Your task to perform on an android device: Go to display settings Image 0: 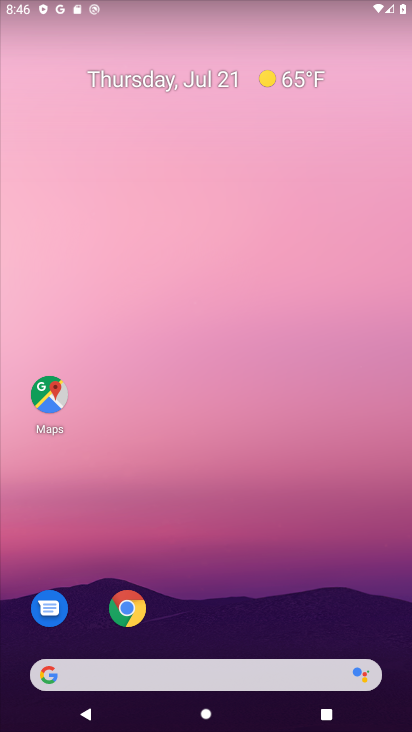
Step 0: drag from (261, 562) to (295, 284)
Your task to perform on an android device: Go to display settings Image 1: 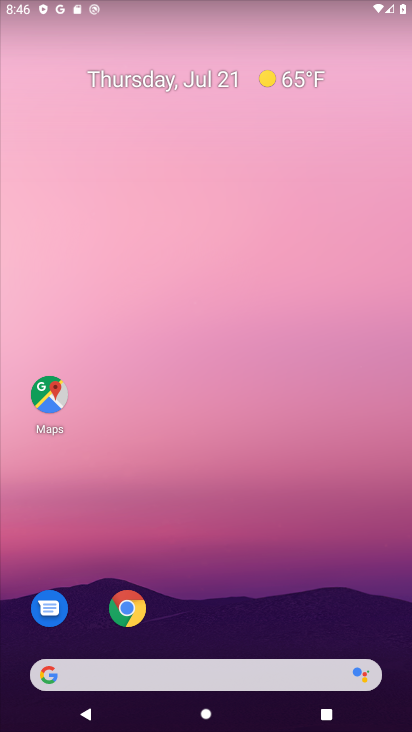
Step 1: drag from (278, 583) to (275, 238)
Your task to perform on an android device: Go to display settings Image 2: 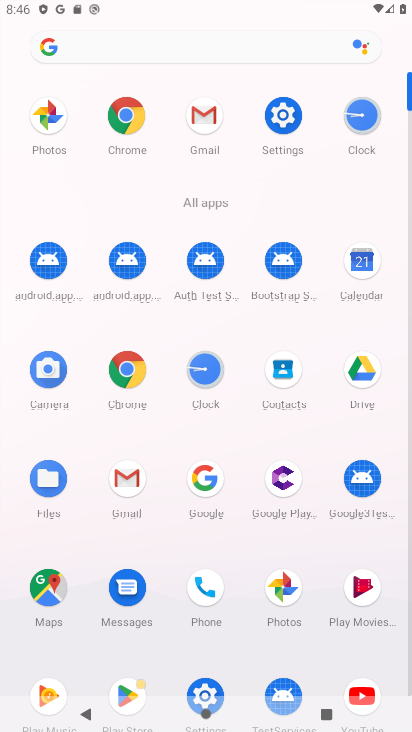
Step 2: click (284, 121)
Your task to perform on an android device: Go to display settings Image 3: 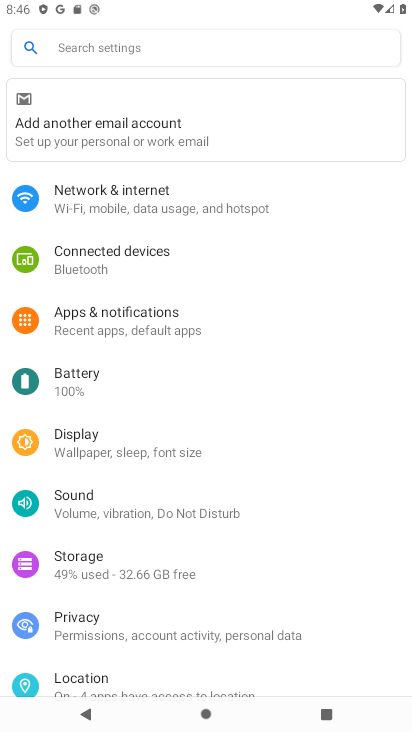
Step 3: click (103, 438)
Your task to perform on an android device: Go to display settings Image 4: 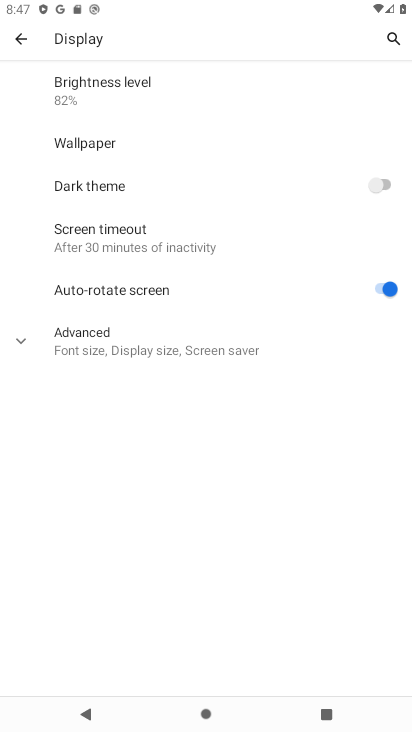
Step 4: task complete